Your task to perform on an android device: change the clock display to show seconds Image 0: 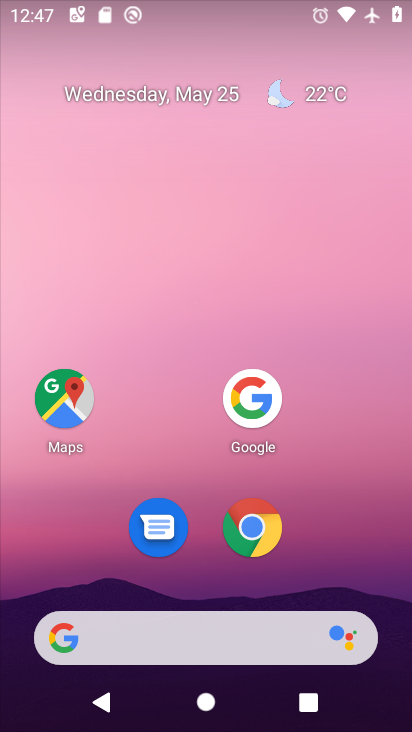
Step 0: drag from (205, 648) to (340, 23)
Your task to perform on an android device: change the clock display to show seconds Image 1: 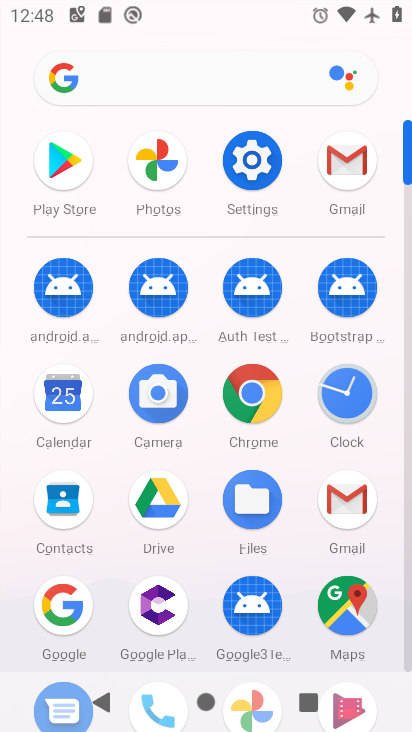
Step 1: click (355, 403)
Your task to perform on an android device: change the clock display to show seconds Image 2: 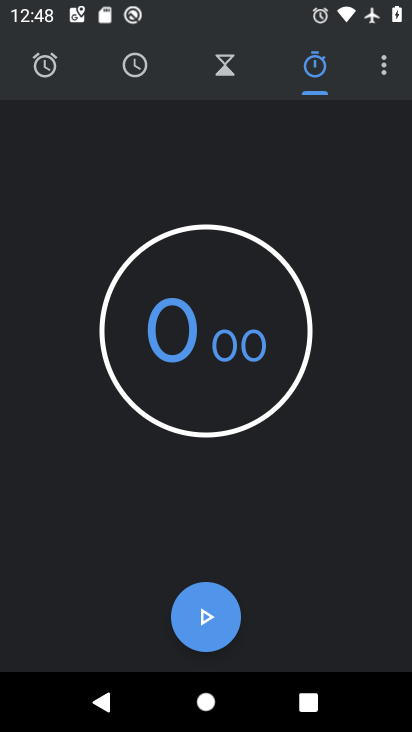
Step 2: click (389, 68)
Your task to perform on an android device: change the clock display to show seconds Image 3: 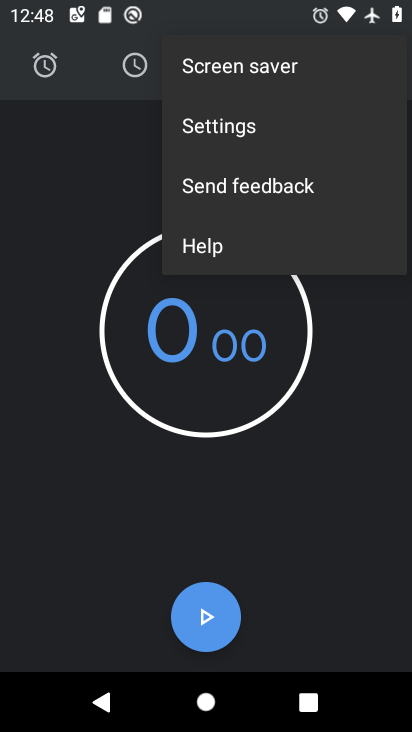
Step 3: click (235, 121)
Your task to perform on an android device: change the clock display to show seconds Image 4: 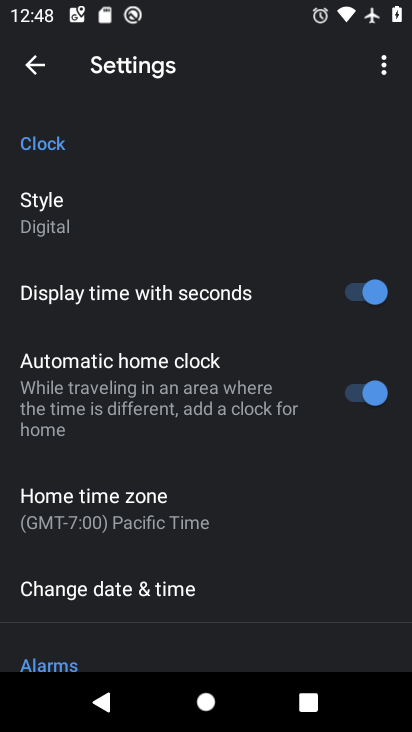
Step 4: task complete